Your task to perform on an android device: Open display settings Image 0: 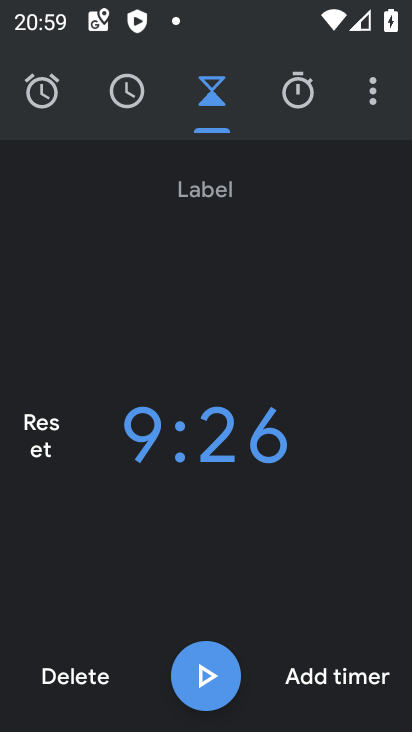
Step 0: press home button
Your task to perform on an android device: Open display settings Image 1: 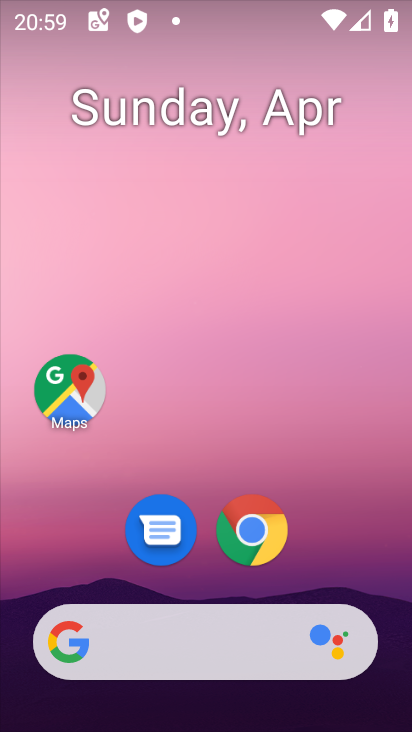
Step 1: drag from (204, 513) to (218, 13)
Your task to perform on an android device: Open display settings Image 2: 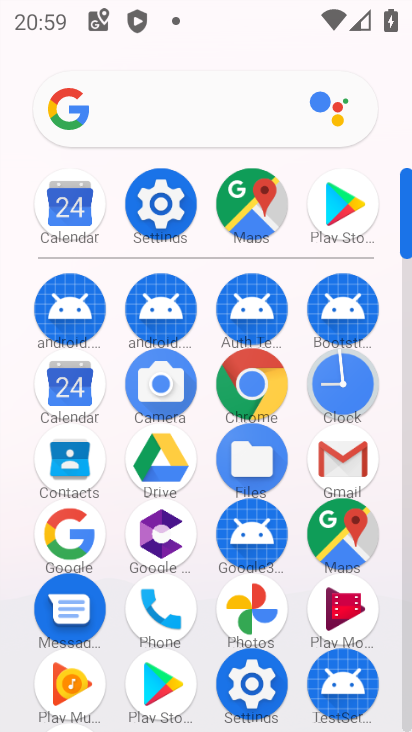
Step 2: click (150, 231)
Your task to perform on an android device: Open display settings Image 3: 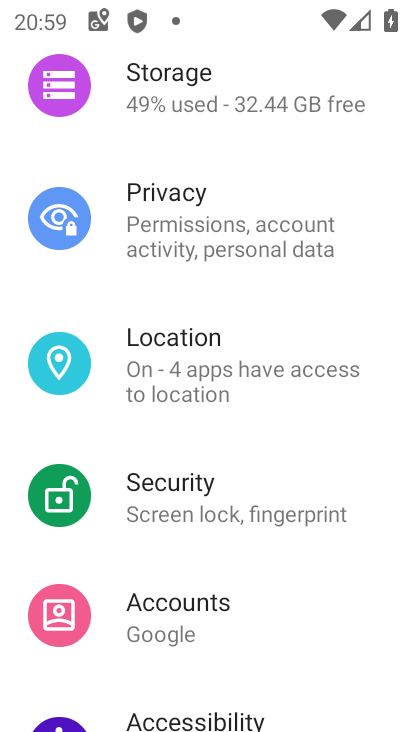
Step 3: drag from (209, 159) to (213, 578)
Your task to perform on an android device: Open display settings Image 4: 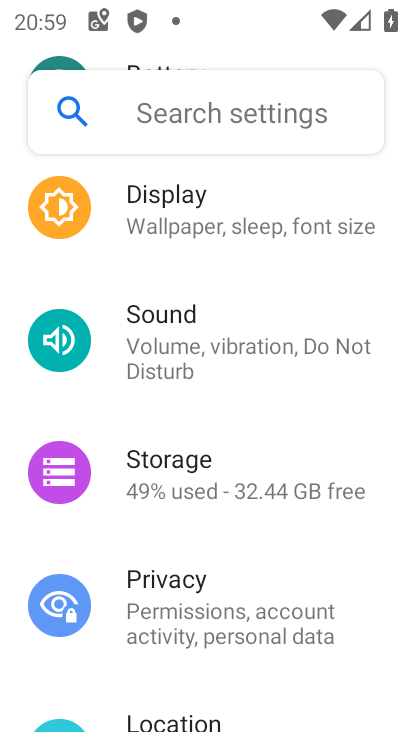
Step 4: click (196, 218)
Your task to perform on an android device: Open display settings Image 5: 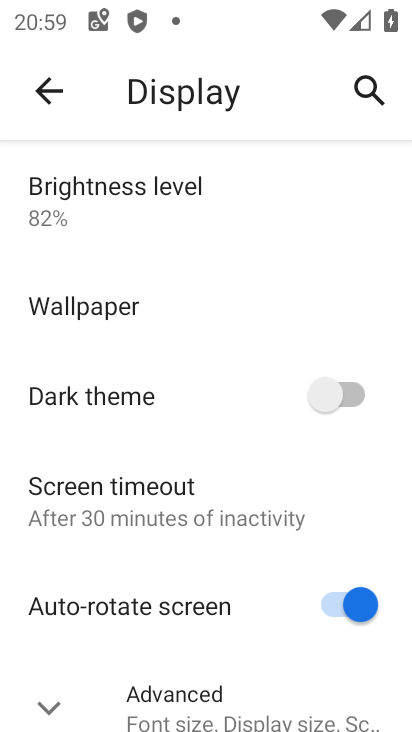
Step 5: task complete